Your task to perform on an android device: Open CNN.com Image 0: 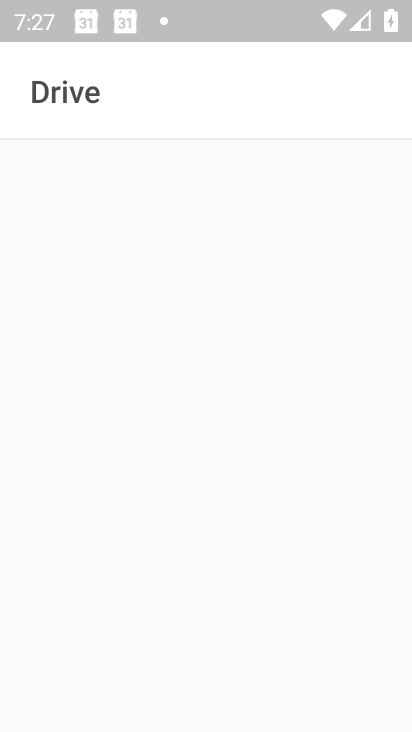
Step 0: press home button
Your task to perform on an android device: Open CNN.com Image 1: 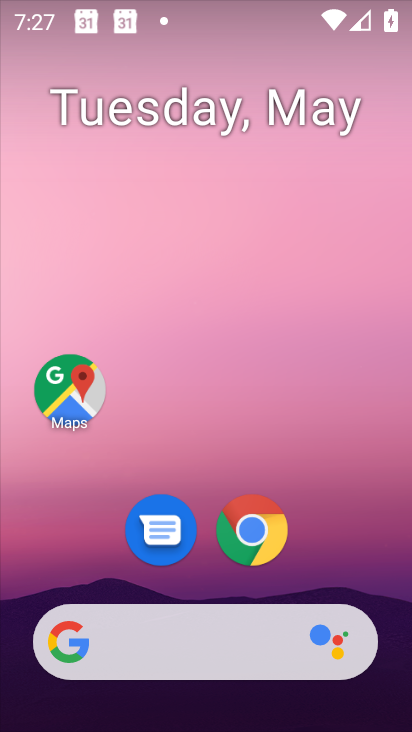
Step 1: click (247, 555)
Your task to perform on an android device: Open CNN.com Image 2: 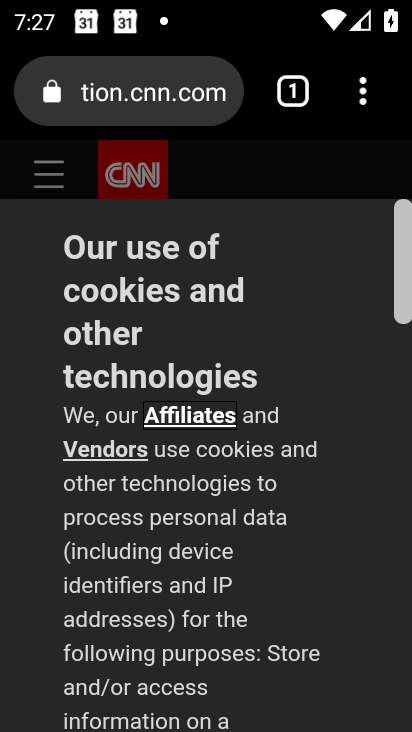
Step 2: drag from (406, 306) to (291, 728)
Your task to perform on an android device: Open CNN.com Image 3: 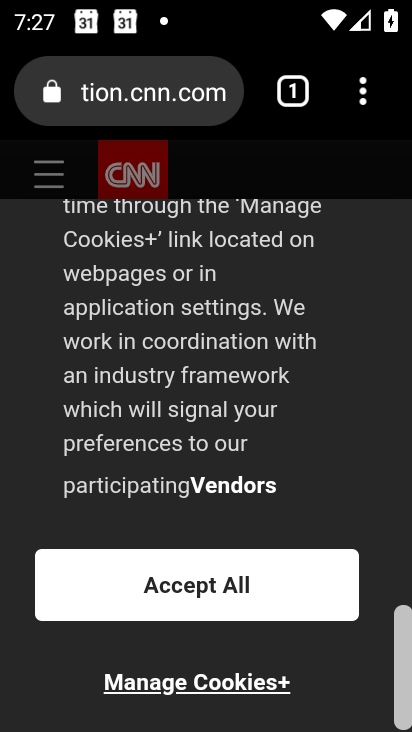
Step 3: click (263, 581)
Your task to perform on an android device: Open CNN.com Image 4: 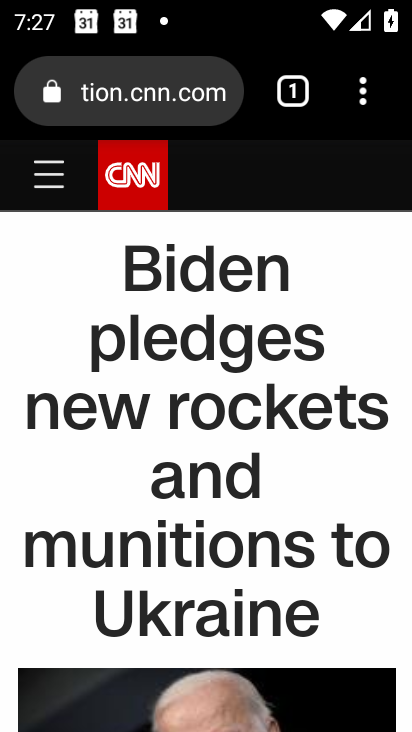
Step 4: task complete